Your task to perform on an android device: turn on translation in the chrome app Image 0: 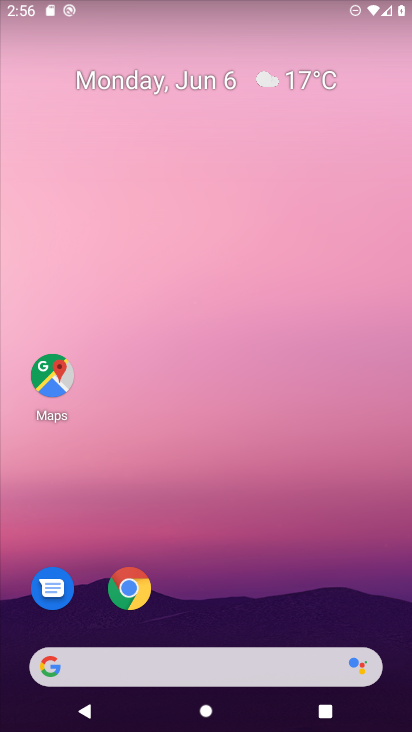
Step 0: click (130, 598)
Your task to perform on an android device: turn on translation in the chrome app Image 1: 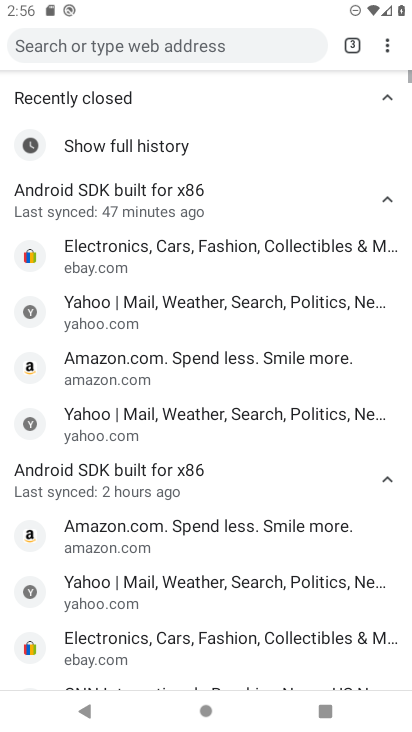
Step 1: click (389, 45)
Your task to perform on an android device: turn on translation in the chrome app Image 2: 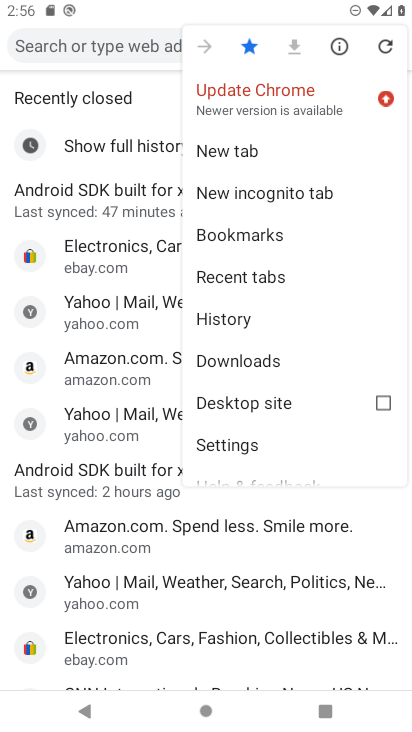
Step 2: click (256, 444)
Your task to perform on an android device: turn on translation in the chrome app Image 3: 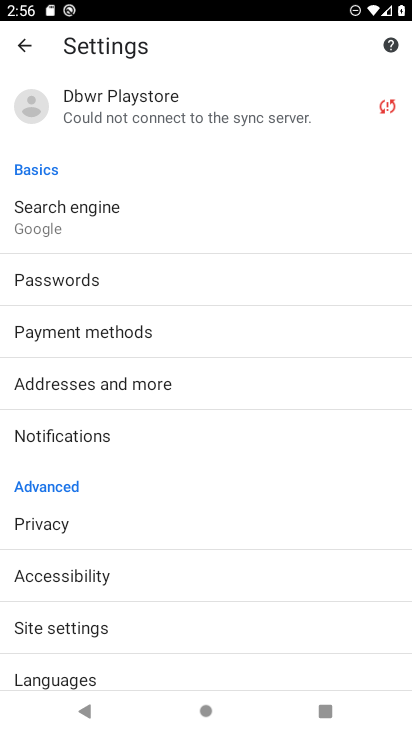
Step 3: click (105, 679)
Your task to perform on an android device: turn on translation in the chrome app Image 4: 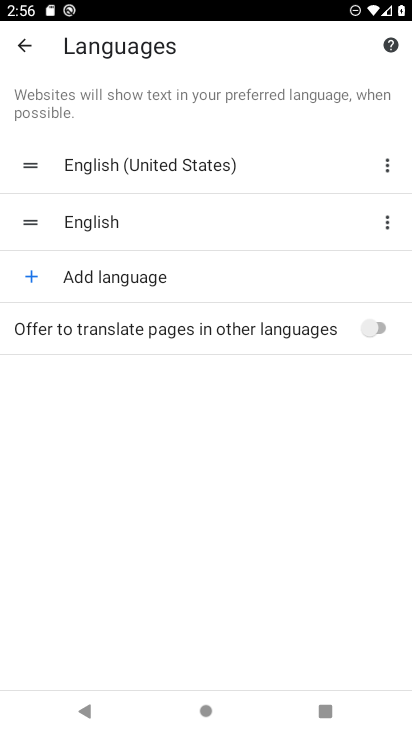
Step 4: click (363, 329)
Your task to perform on an android device: turn on translation in the chrome app Image 5: 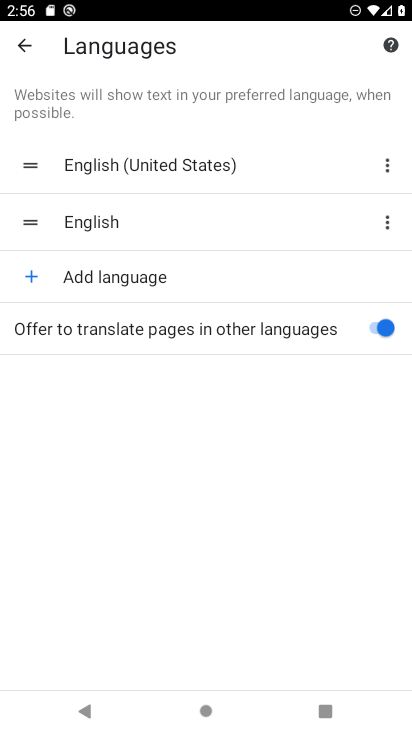
Step 5: task complete